Your task to perform on an android device: change notification settings in the gmail app Image 0: 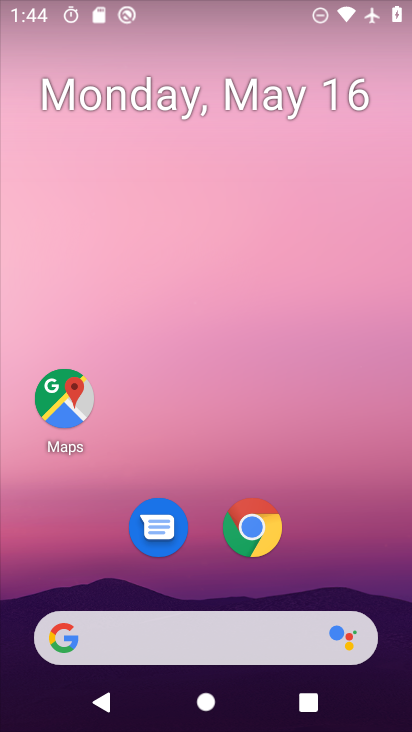
Step 0: press home button
Your task to perform on an android device: change notification settings in the gmail app Image 1: 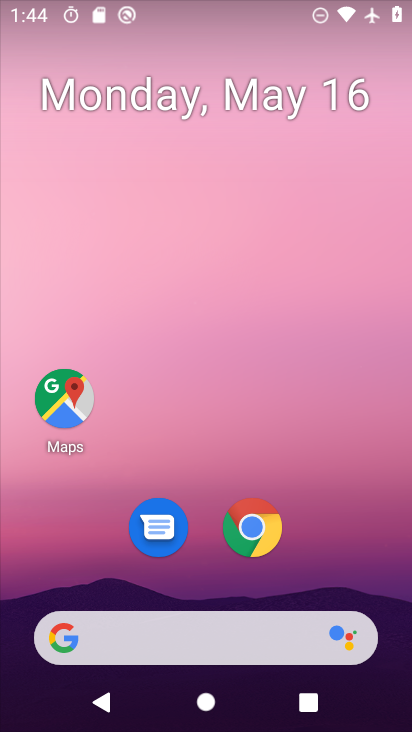
Step 1: drag from (155, 641) to (297, 247)
Your task to perform on an android device: change notification settings in the gmail app Image 2: 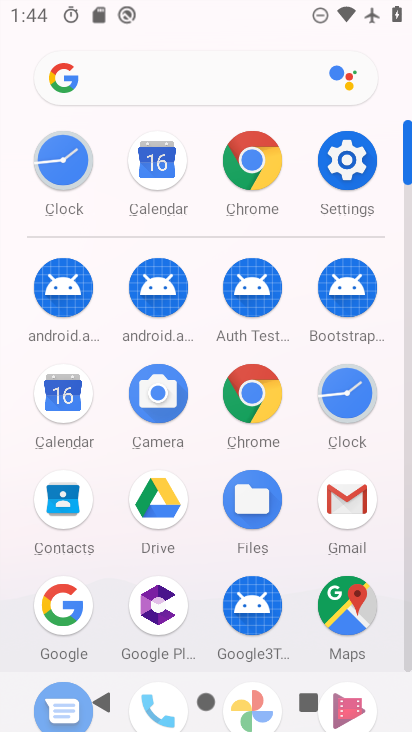
Step 2: click (346, 502)
Your task to perform on an android device: change notification settings in the gmail app Image 3: 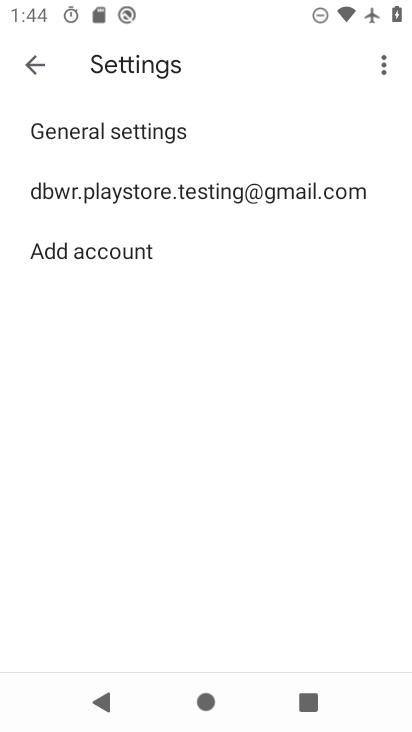
Step 3: click (264, 190)
Your task to perform on an android device: change notification settings in the gmail app Image 4: 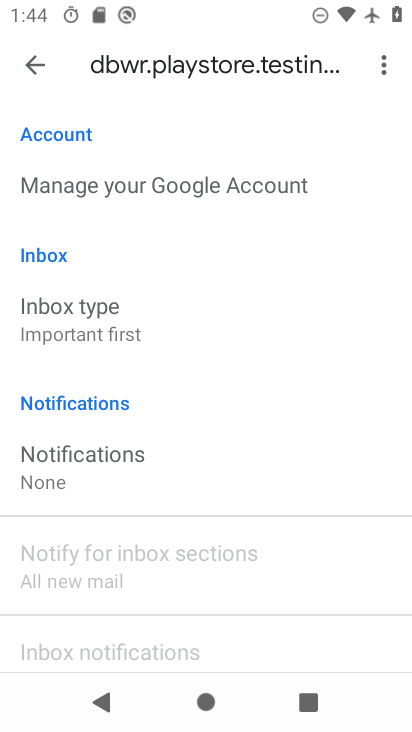
Step 4: click (93, 454)
Your task to perform on an android device: change notification settings in the gmail app Image 5: 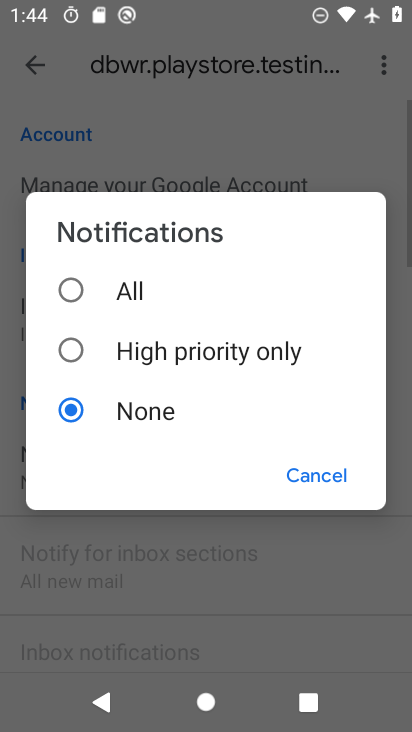
Step 5: click (75, 283)
Your task to perform on an android device: change notification settings in the gmail app Image 6: 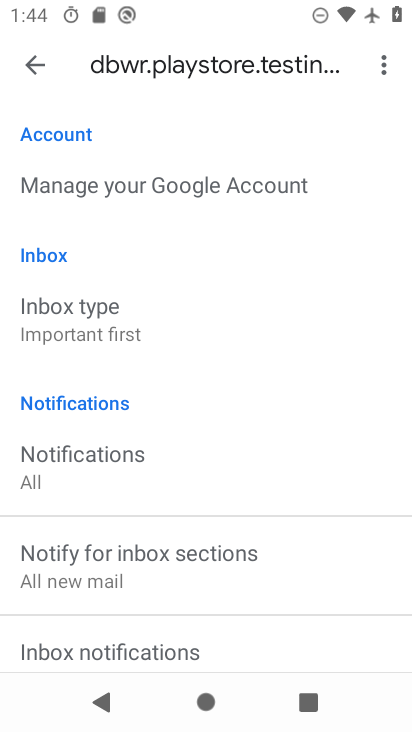
Step 6: task complete